Your task to perform on an android device: Is it going to rain today? Image 0: 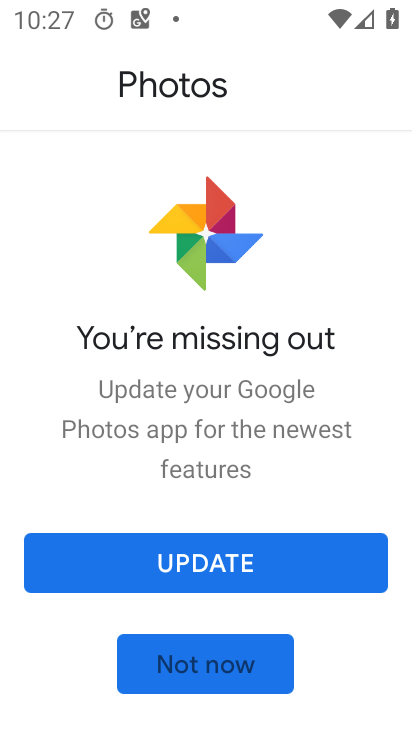
Step 0: press home button
Your task to perform on an android device: Is it going to rain today? Image 1: 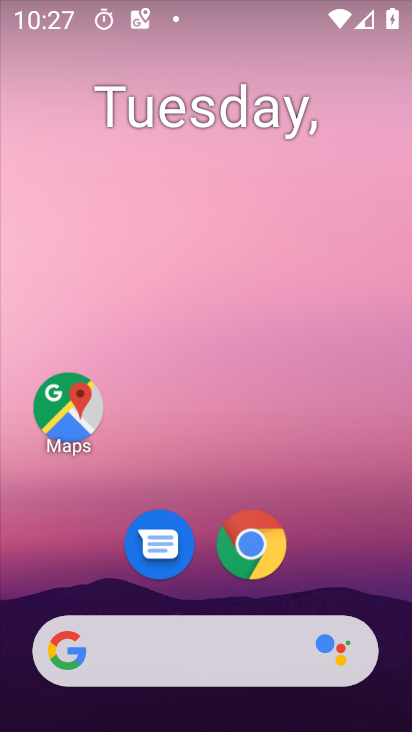
Step 1: click (258, 556)
Your task to perform on an android device: Is it going to rain today? Image 2: 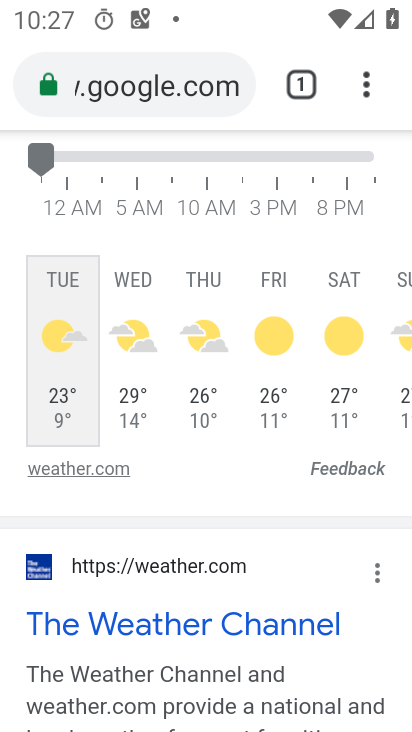
Step 2: drag from (144, 717) to (352, 690)
Your task to perform on an android device: Is it going to rain today? Image 3: 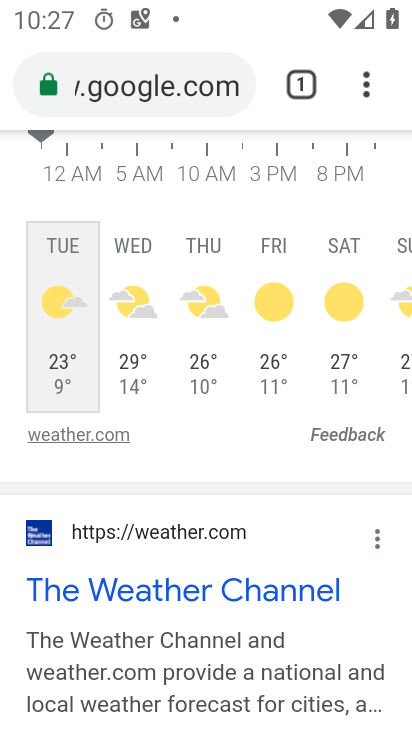
Step 3: click (194, 74)
Your task to perform on an android device: Is it going to rain today? Image 4: 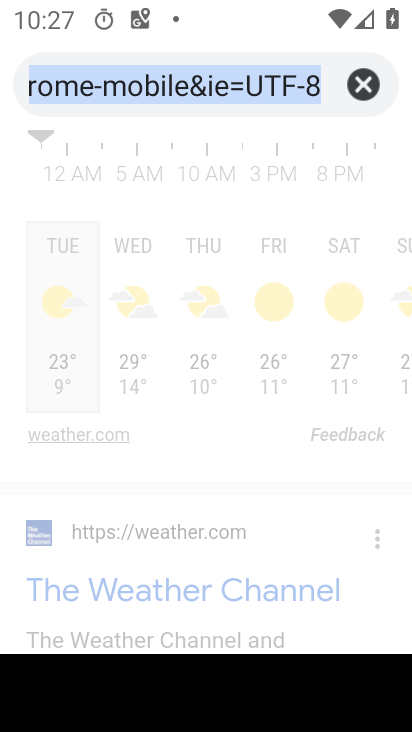
Step 4: type "Is it going to rain today?"
Your task to perform on an android device: Is it going to rain today? Image 5: 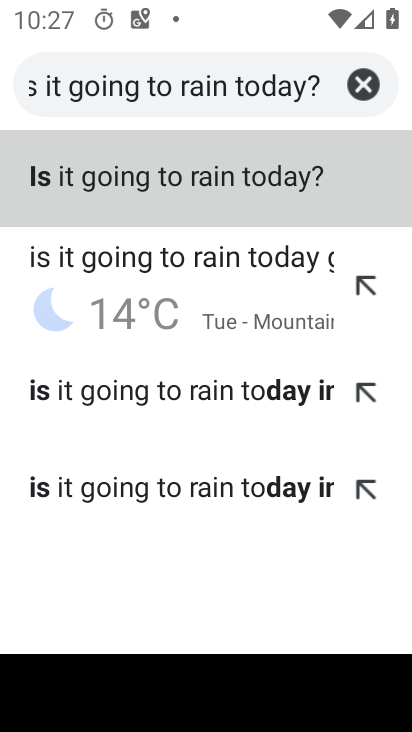
Step 5: click (272, 206)
Your task to perform on an android device: Is it going to rain today? Image 6: 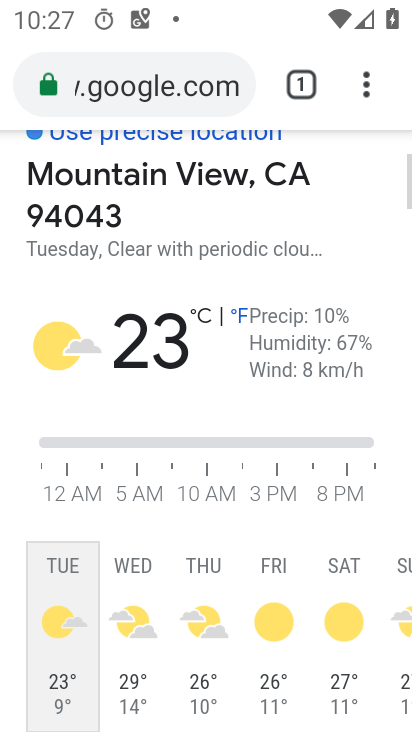
Step 6: drag from (275, 576) to (261, 320)
Your task to perform on an android device: Is it going to rain today? Image 7: 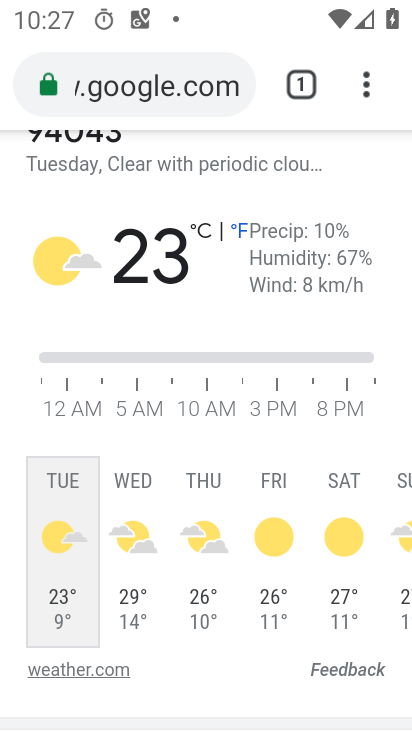
Step 7: click (129, 556)
Your task to perform on an android device: Is it going to rain today? Image 8: 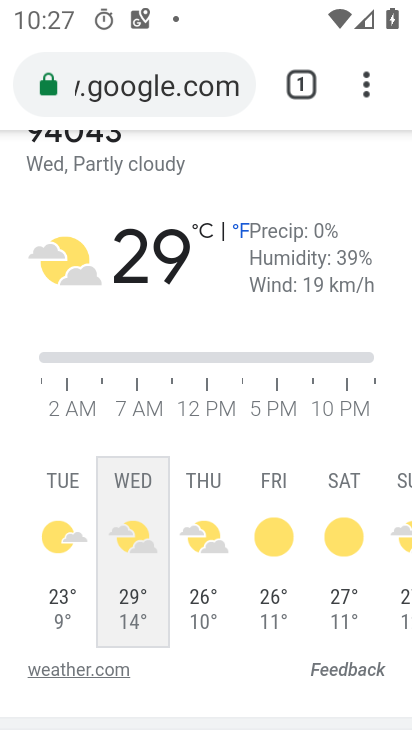
Step 8: task complete